Your task to perform on an android device: Clear the shopping cart on bestbuy. Image 0: 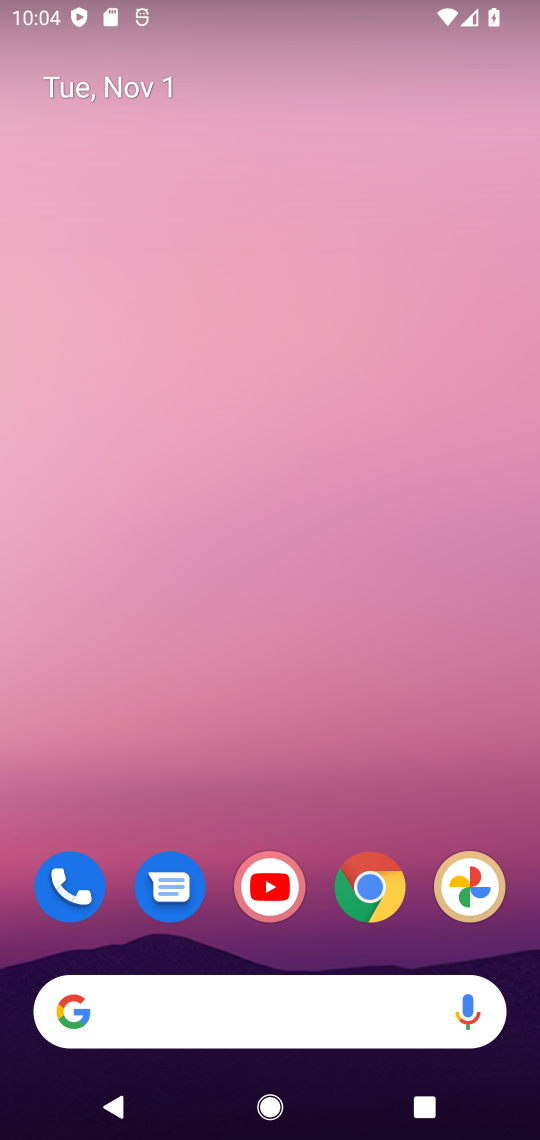
Step 0: click (374, 890)
Your task to perform on an android device: Clear the shopping cart on bestbuy. Image 1: 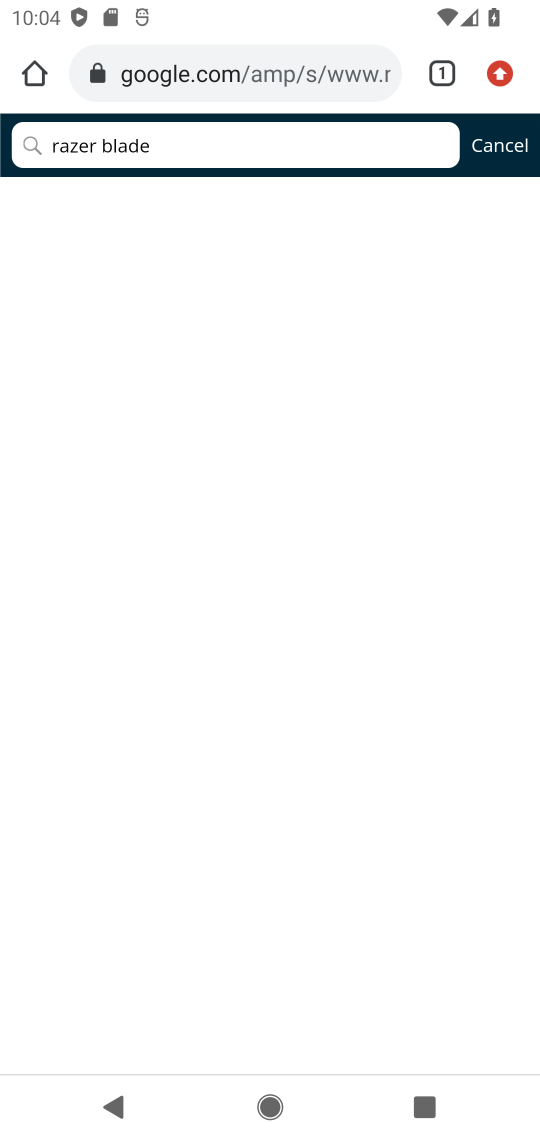
Step 1: click (376, 67)
Your task to perform on an android device: Clear the shopping cart on bestbuy. Image 2: 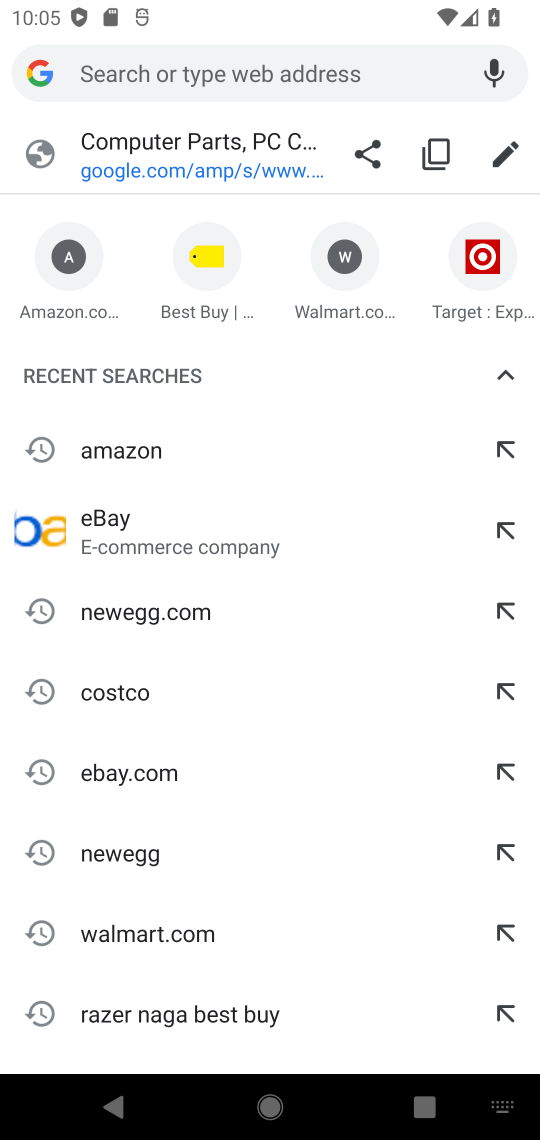
Step 2: press enter
Your task to perform on an android device: Clear the shopping cart on bestbuy. Image 3: 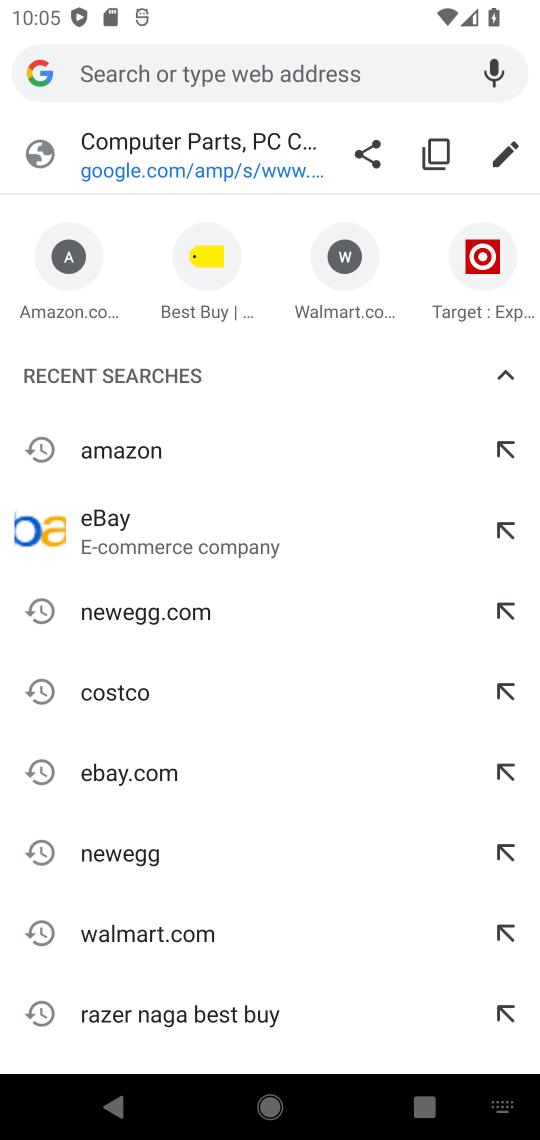
Step 3: type "bestbuy"
Your task to perform on an android device: Clear the shopping cart on bestbuy. Image 4: 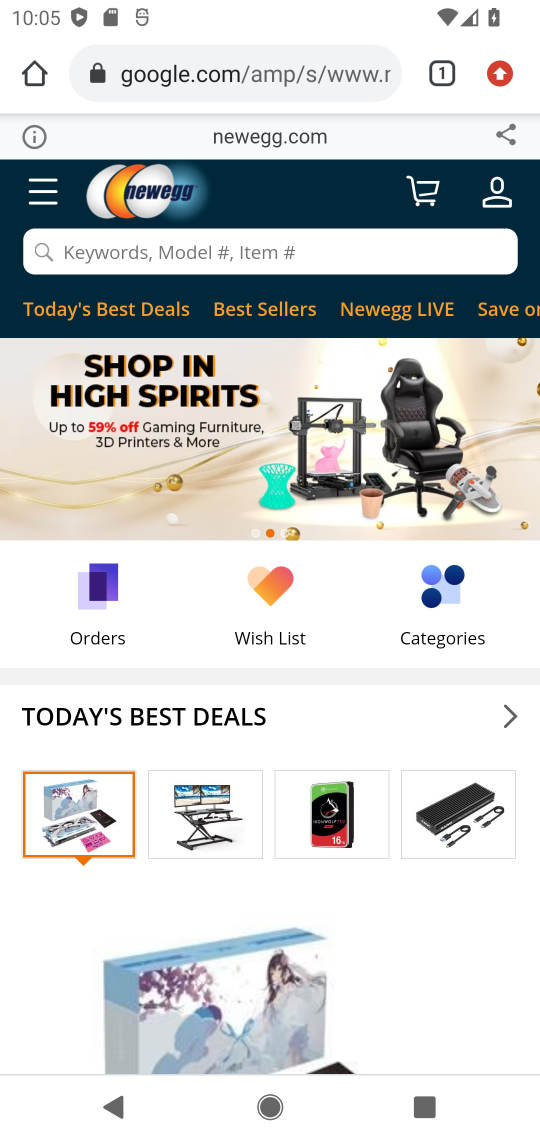
Step 4: click (276, 82)
Your task to perform on an android device: Clear the shopping cart on bestbuy. Image 5: 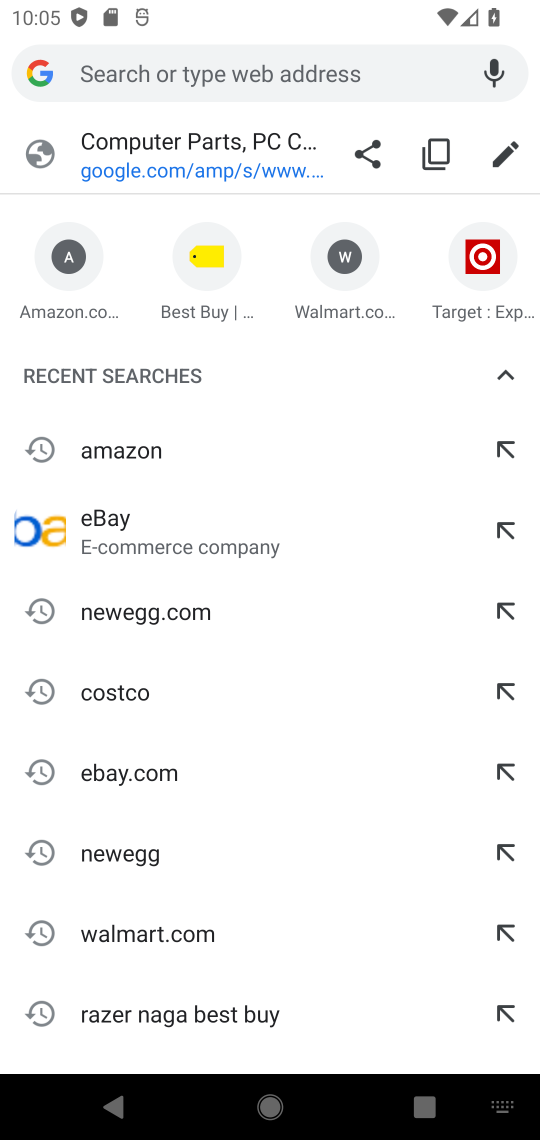
Step 5: click (204, 274)
Your task to perform on an android device: Clear the shopping cart on bestbuy. Image 6: 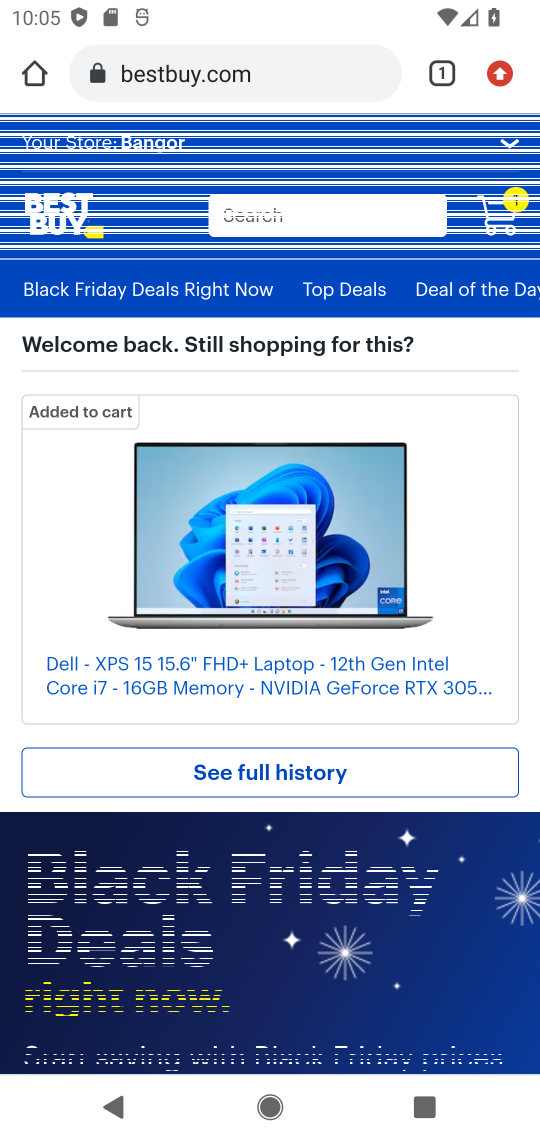
Step 6: click (495, 213)
Your task to perform on an android device: Clear the shopping cart on bestbuy. Image 7: 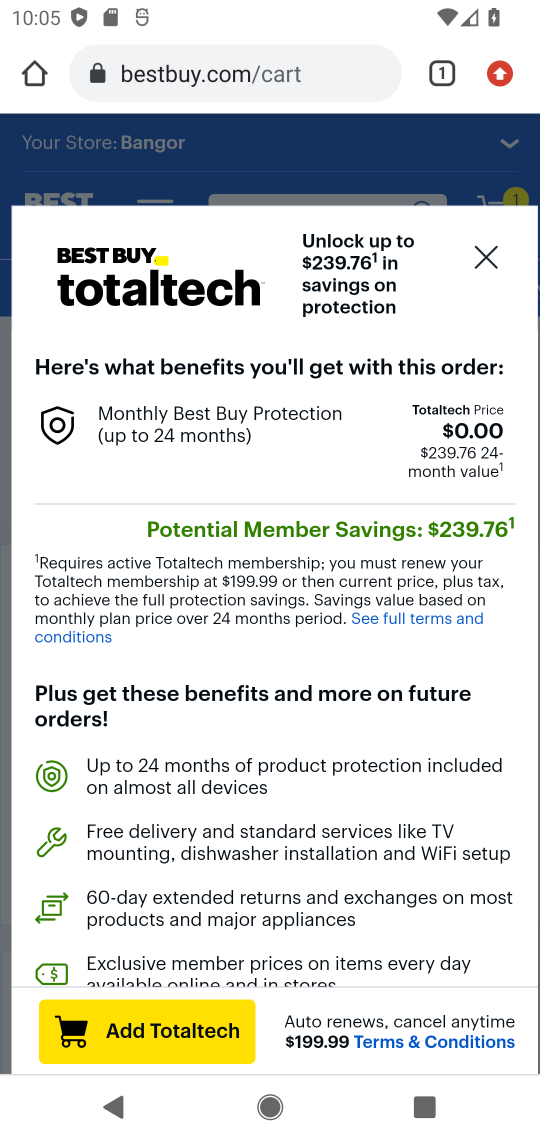
Step 7: click (477, 249)
Your task to perform on an android device: Clear the shopping cart on bestbuy. Image 8: 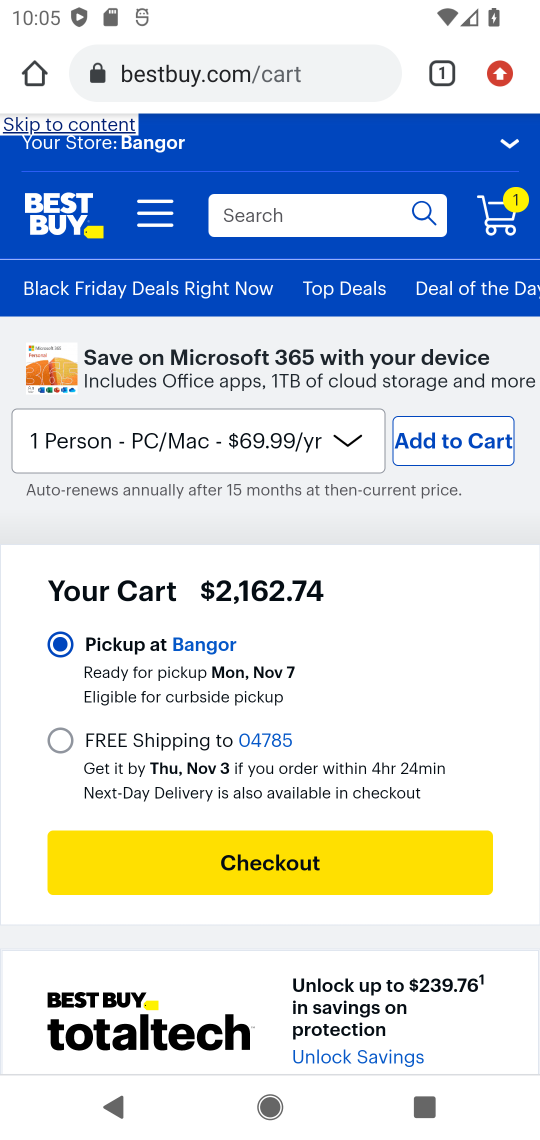
Step 8: drag from (293, 683) to (293, 371)
Your task to perform on an android device: Clear the shopping cart on bestbuy. Image 9: 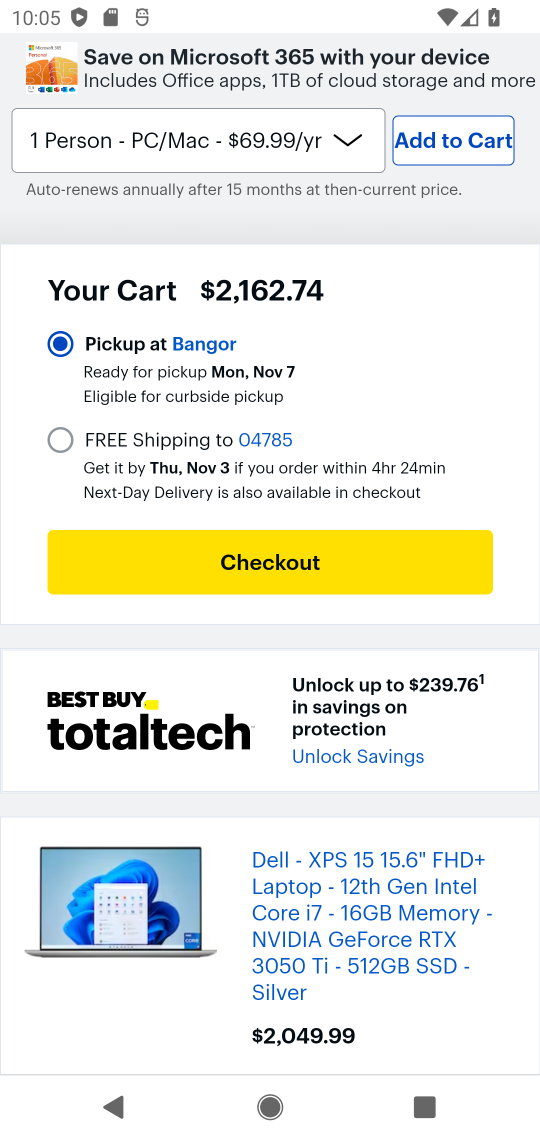
Step 9: drag from (334, 831) to (318, 484)
Your task to perform on an android device: Clear the shopping cart on bestbuy. Image 10: 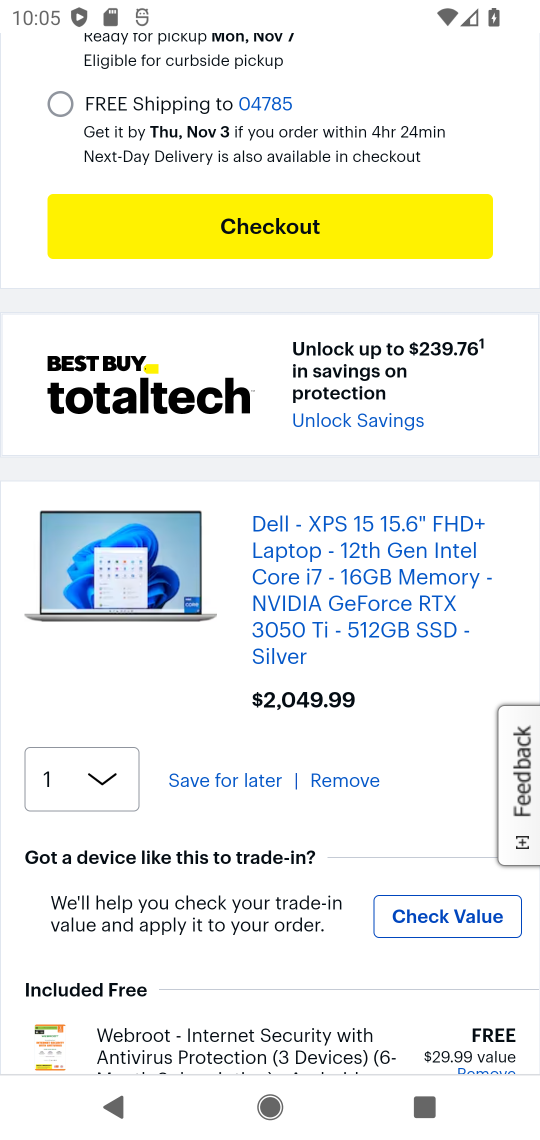
Step 10: click (361, 780)
Your task to perform on an android device: Clear the shopping cart on bestbuy. Image 11: 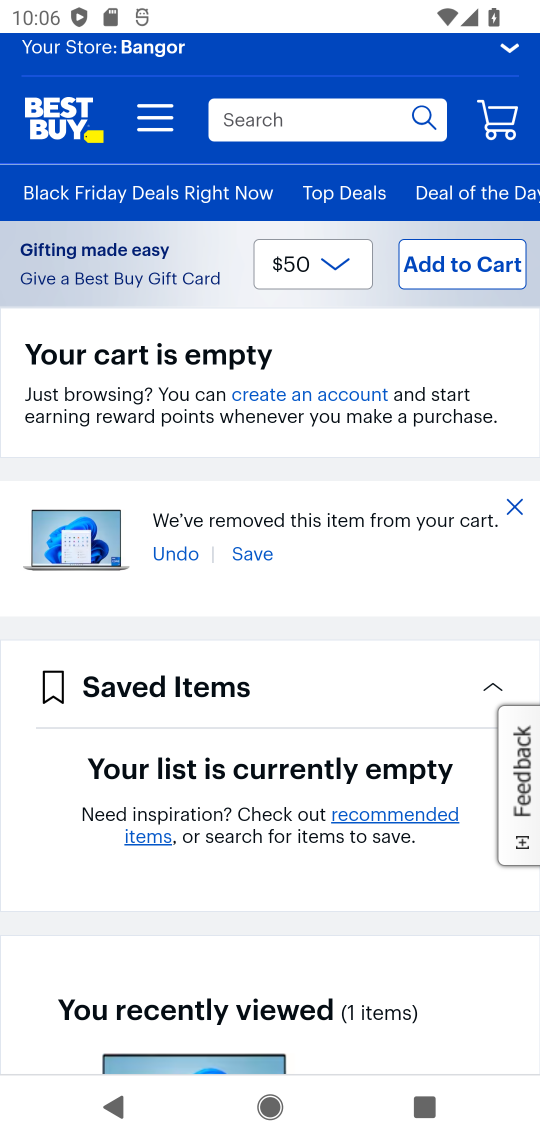
Step 11: task complete